Your task to perform on an android device: Open Android settings Image 0: 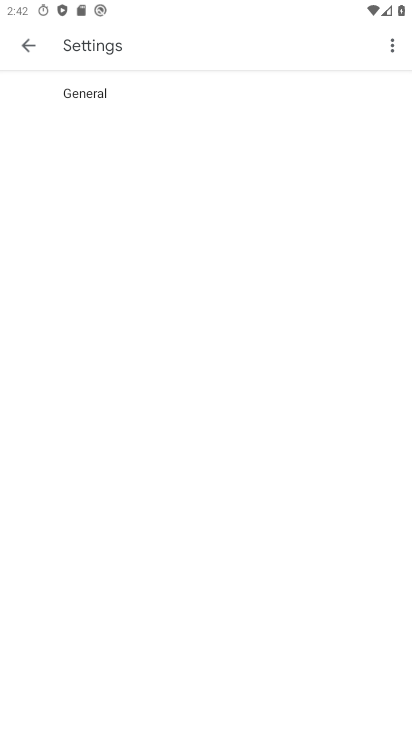
Step 0: press home button
Your task to perform on an android device: Open Android settings Image 1: 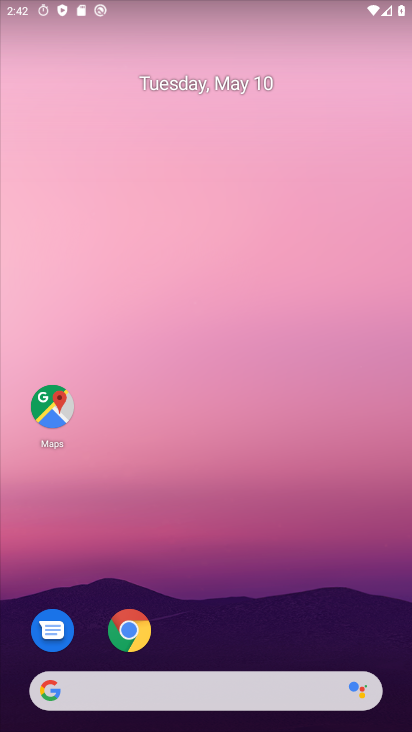
Step 1: drag from (262, 648) to (399, 3)
Your task to perform on an android device: Open Android settings Image 2: 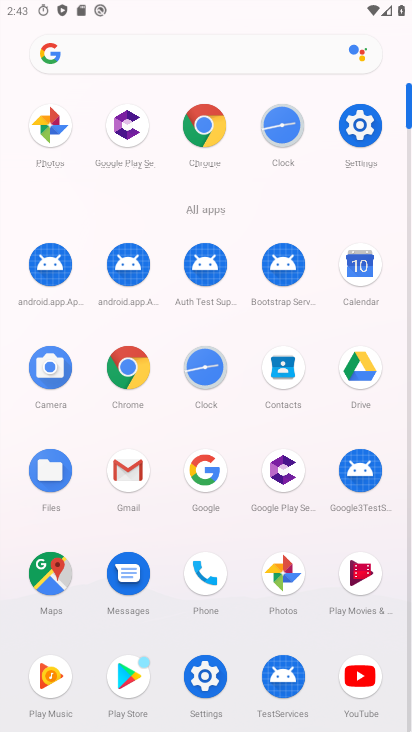
Step 2: click (351, 130)
Your task to perform on an android device: Open Android settings Image 3: 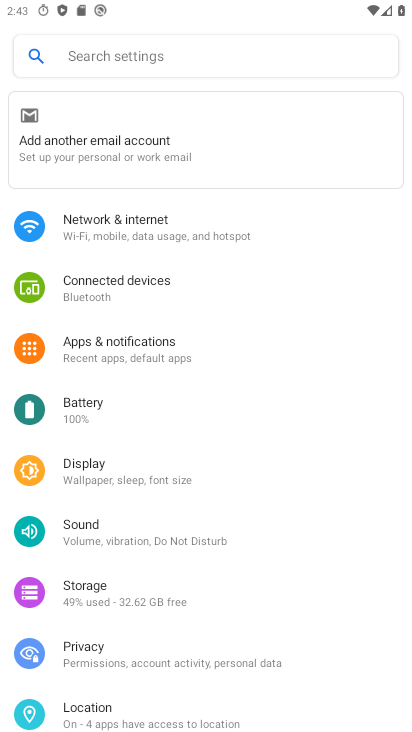
Step 3: task complete